Your task to perform on an android device: Go to eBay Image 0: 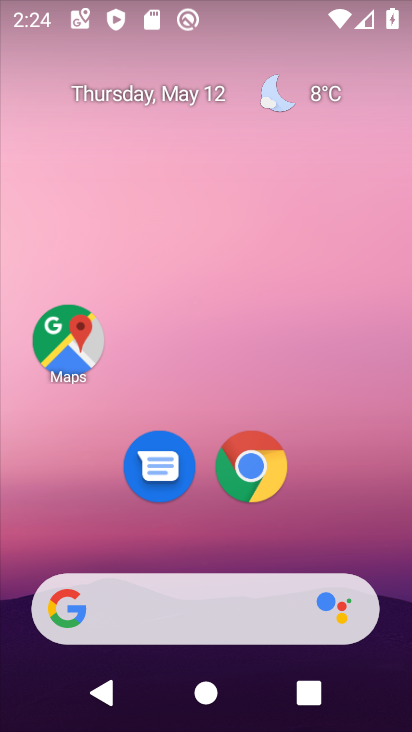
Step 0: click (270, 465)
Your task to perform on an android device: Go to eBay Image 1: 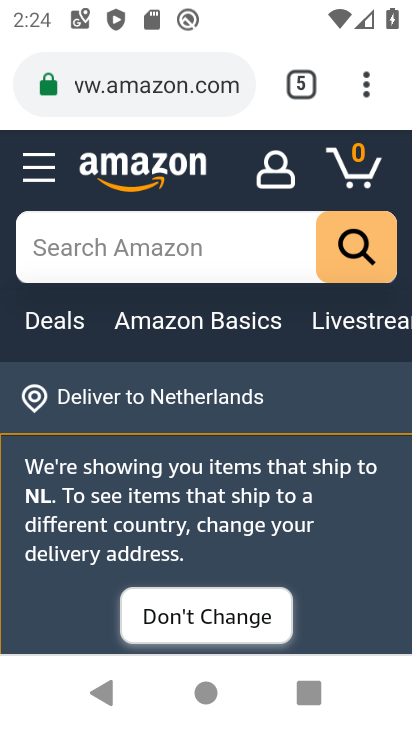
Step 1: click (311, 86)
Your task to perform on an android device: Go to eBay Image 2: 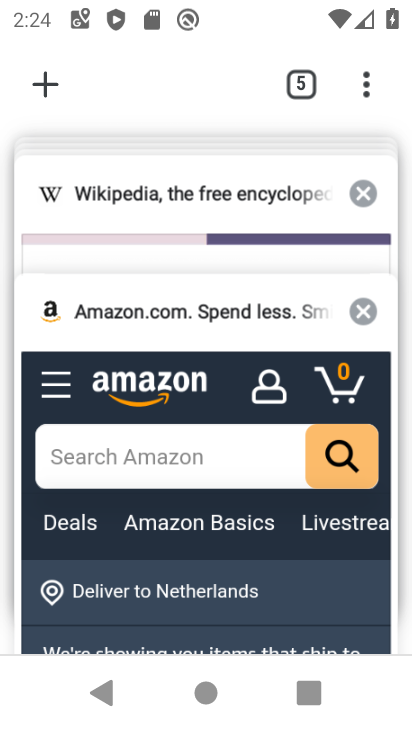
Step 2: click (44, 81)
Your task to perform on an android device: Go to eBay Image 3: 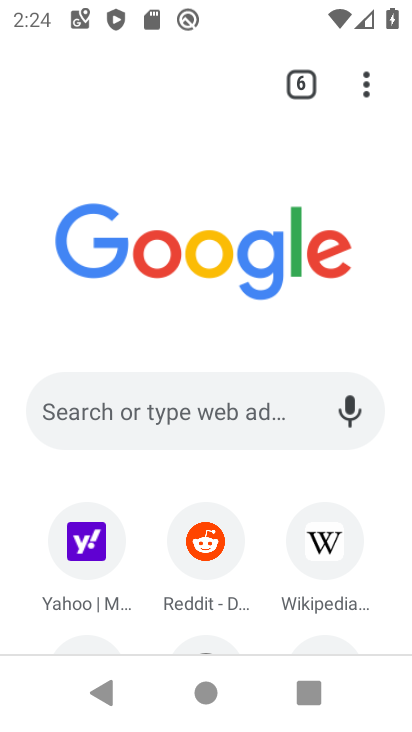
Step 3: drag from (149, 587) to (152, 314)
Your task to perform on an android device: Go to eBay Image 4: 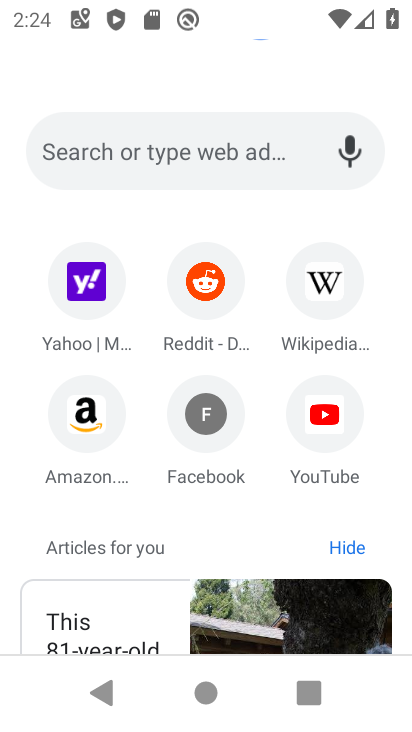
Step 4: click (108, 159)
Your task to perform on an android device: Go to eBay Image 5: 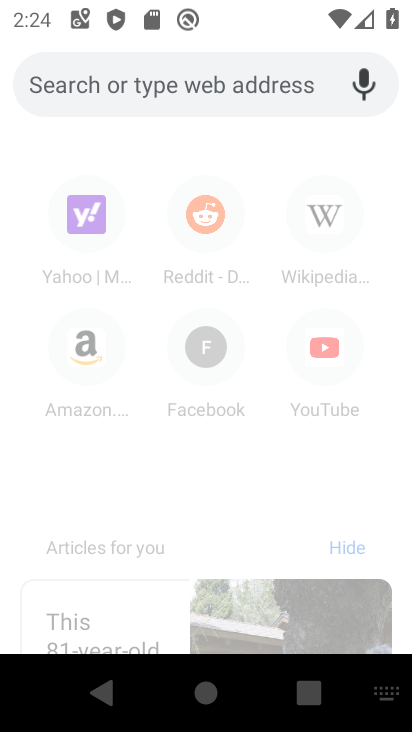
Step 5: type "ebay"
Your task to perform on an android device: Go to eBay Image 6: 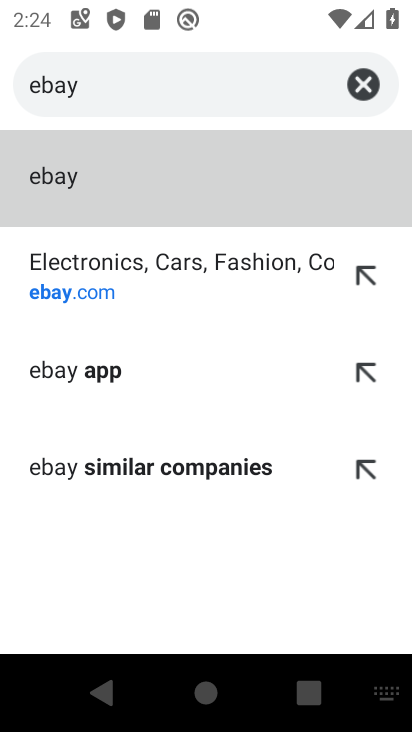
Step 6: click (121, 271)
Your task to perform on an android device: Go to eBay Image 7: 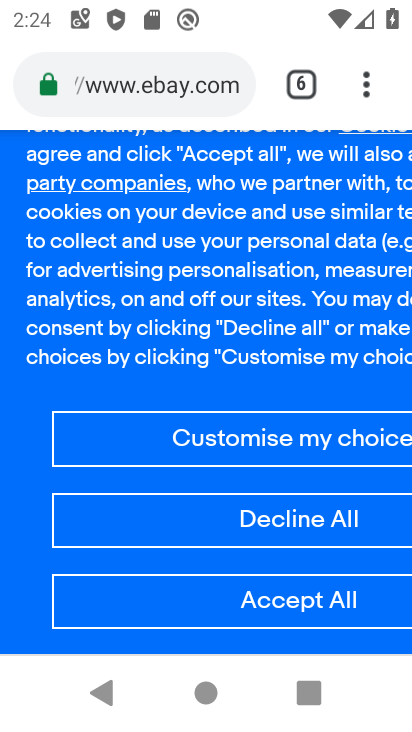
Step 7: drag from (228, 605) to (186, 611)
Your task to perform on an android device: Go to eBay Image 8: 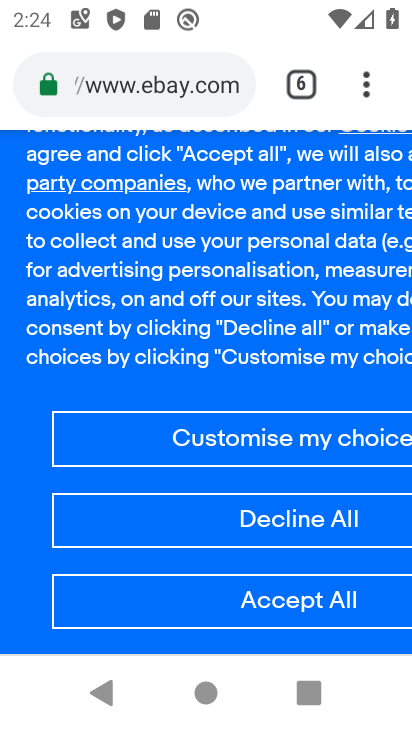
Step 8: click (226, 608)
Your task to perform on an android device: Go to eBay Image 9: 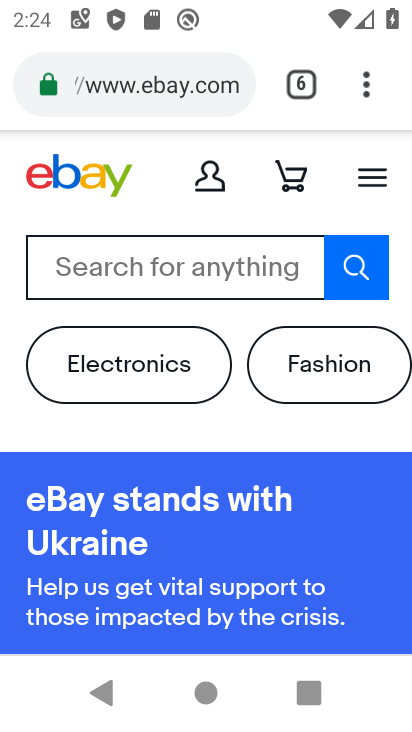
Step 9: task complete